Your task to perform on an android device: empty trash in the gmail app Image 0: 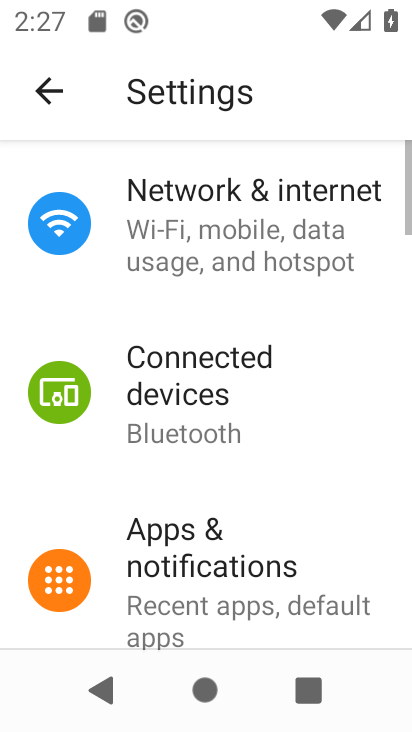
Step 0: press home button
Your task to perform on an android device: empty trash in the gmail app Image 1: 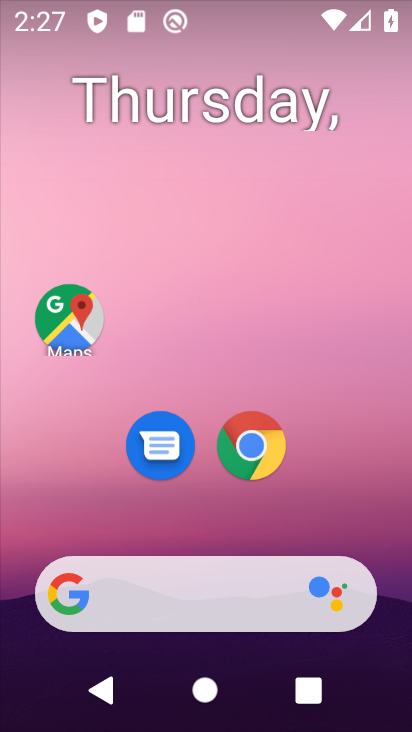
Step 1: drag from (220, 530) to (275, 53)
Your task to perform on an android device: empty trash in the gmail app Image 2: 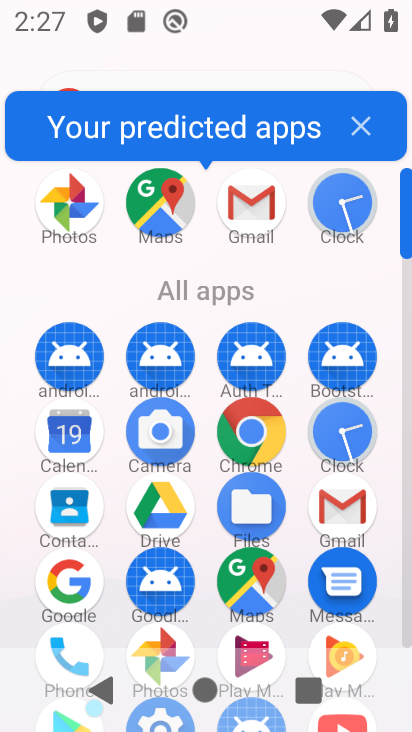
Step 2: click (355, 511)
Your task to perform on an android device: empty trash in the gmail app Image 3: 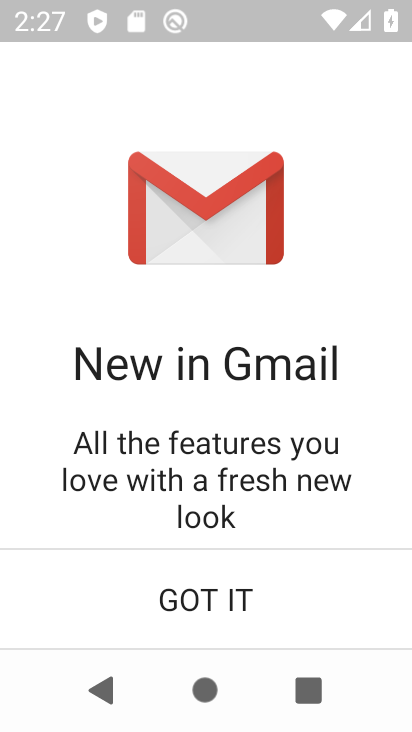
Step 3: click (226, 596)
Your task to perform on an android device: empty trash in the gmail app Image 4: 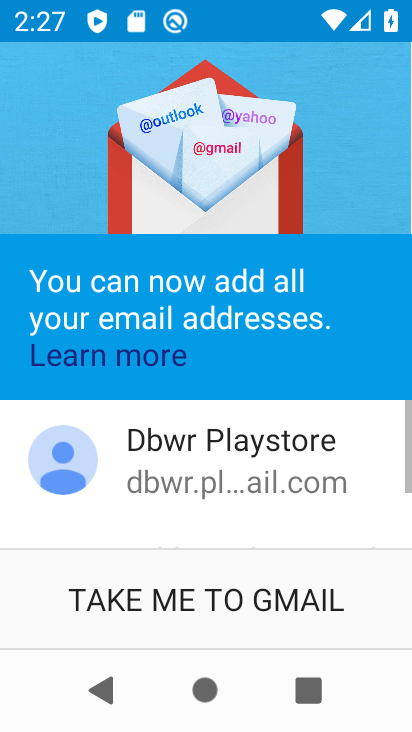
Step 4: click (222, 603)
Your task to perform on an android device: empty trash in the gmail app Image 5: 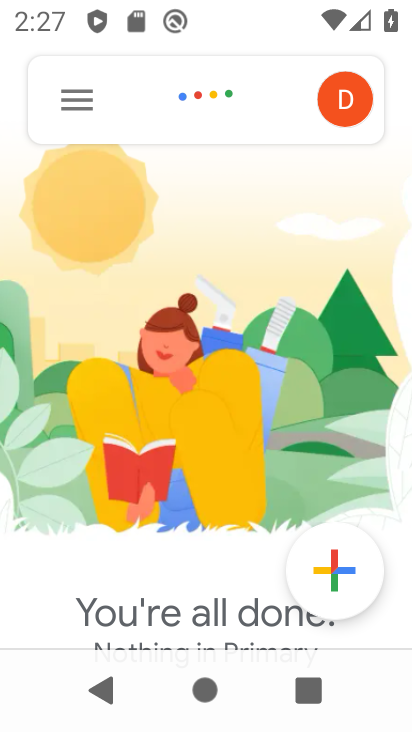
Step 5: click (64, 101)
Your task to perform on an android device: empty trash in the gmail app Image 6: 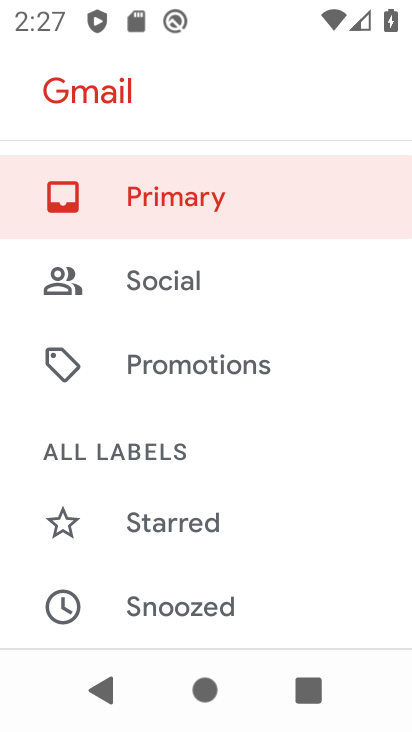
Step 6: drag from (80, 580) to (134, 213)
Your task to perform on an android device: empty trash in the gmail app Image 7: 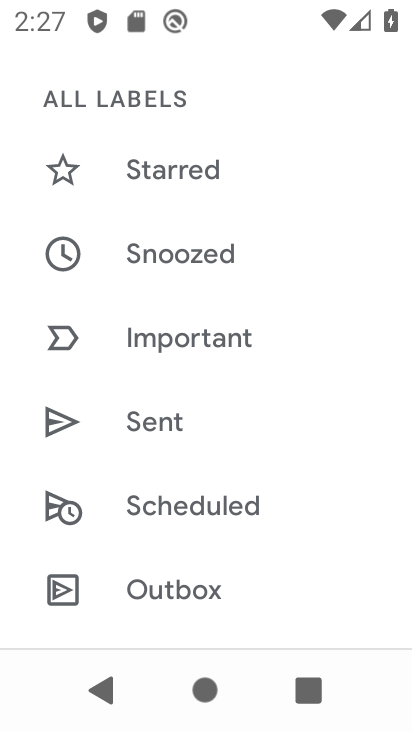
Step 7: drag from (132, 557) to (145, 358)
Your task to perform on an android device: empty trash in the gmail app Image 8: 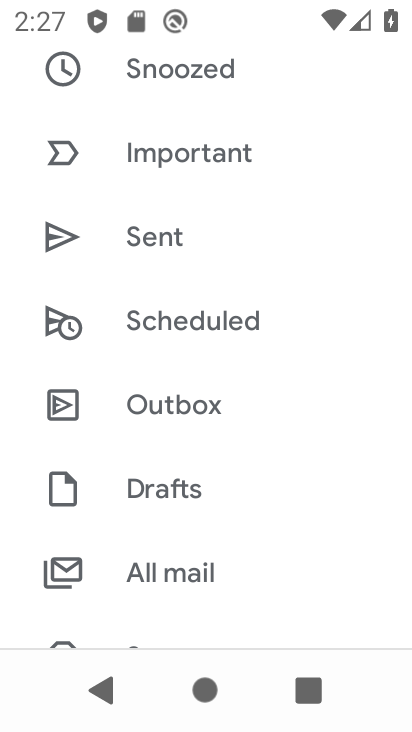
Step 8: drag from (125, 555) to (153, 334)
Your task to perform on an android device: empty trash in the gmail app Image 9: 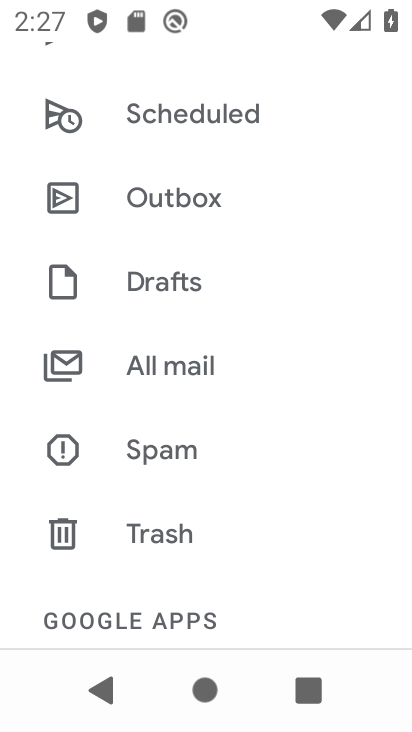
Step 9: drag from (136, 594) to (158, 381)
Your task to perform on an android device: empty trash in the gmail app Image 10: 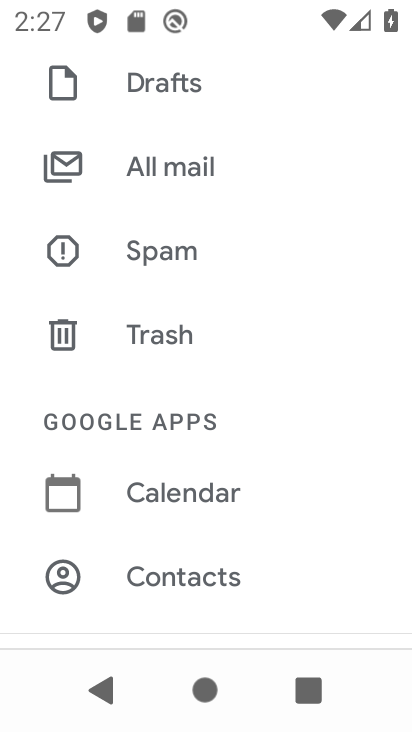
Step 10: drag from (159, 580) to (207, 331)
Your task to perform on an android device: empty trash in the gmail app Image 11: 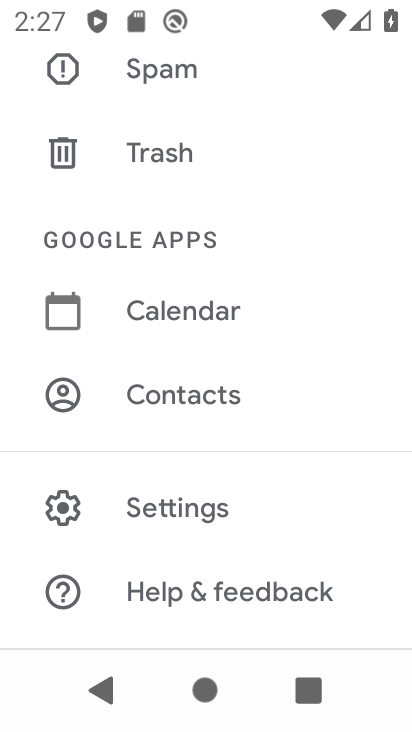
Step 11: click (169, 173)
Your task to perform on an android device: empty trash in the gmail app Image 12: 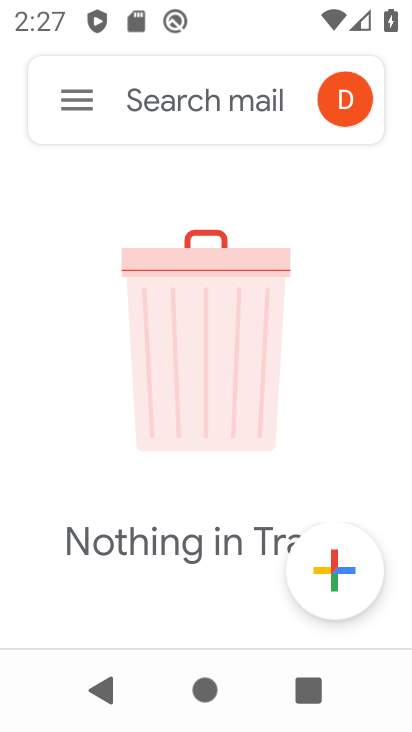
Step 12: task complete